Your task to perform on an android device: Is it going to rain this weekend? Image 0: 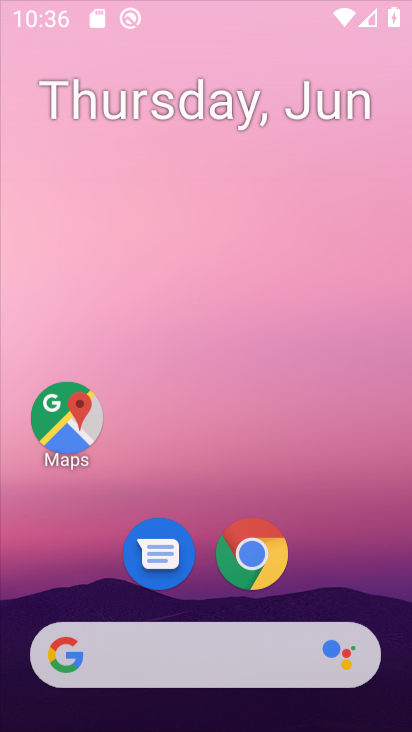
Step 0: drag from (179, 379) to (221, 181)
Your task to perform on an android device: Is it going to rain this weekend? Image 1: 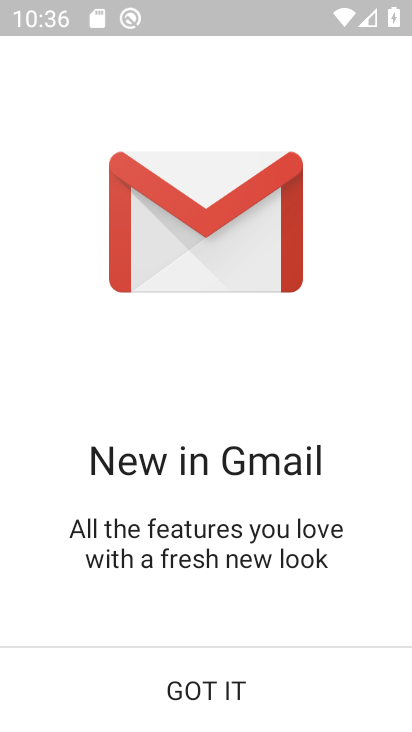
Step 1: click (203, 680)
Your task to perform on an android device: Is it going to rain this weekend? Image 2: 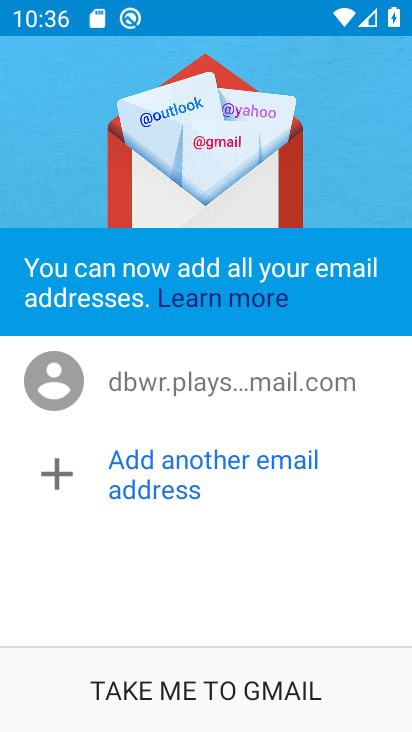
Step 2: press home button
Your task to perform on an android device: Is it going to rain this weekend? Image 3: 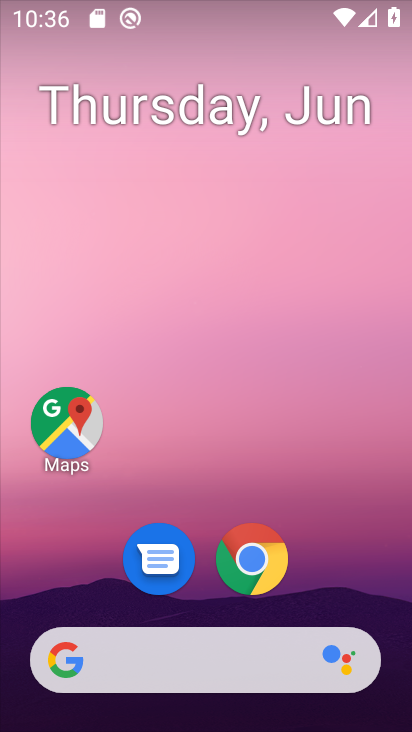
Step 3: drag from (183, 626) to (255, 29)
Your task to perform on an android device: Is it going to rain this weekend? Image 4: 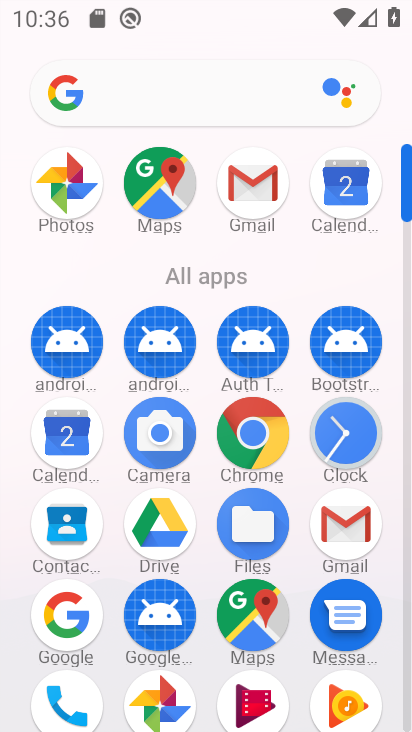
Step 4: click (64, 614)
Your task to perform on an android device: Is it going to rain this weekend? Image 5: 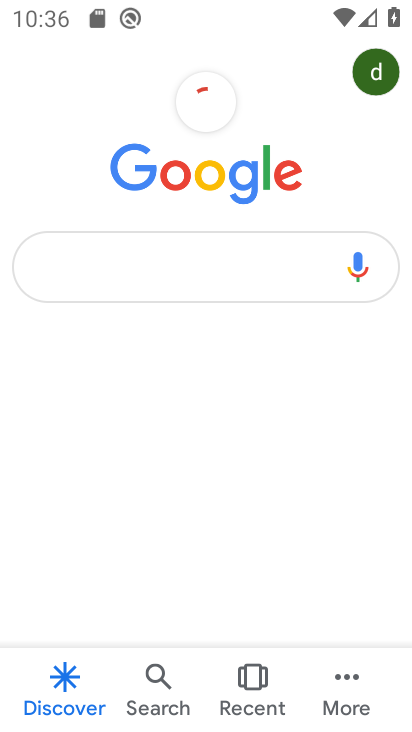
Step 5: click (187, 256)
Your task to perform on an android device: Is it going to rain this weekend? Image 6: 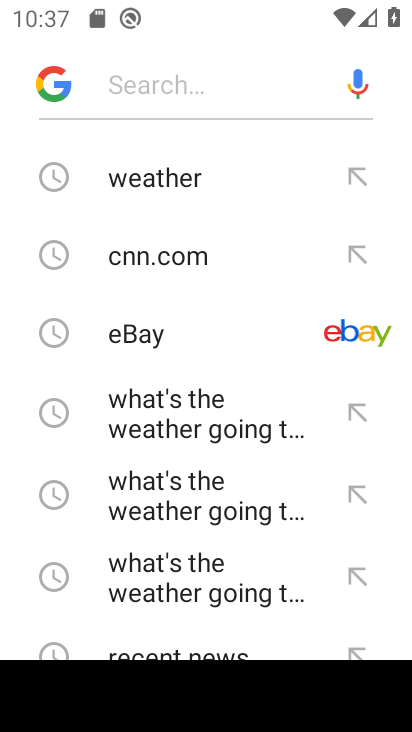
Step 6: drag from (182, 451) to (198, 130)
Your task to perform on an android device: Is it going to rain this weekend? Image 7: 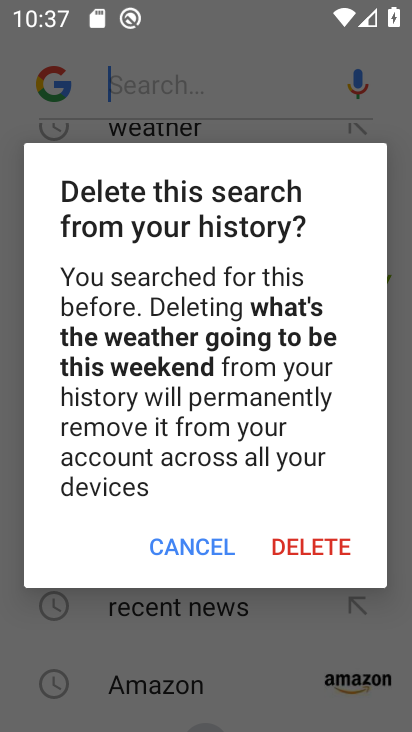
Step 7: click (176, 542)
Your task to perform on an android device: Is it going to rain this weekend? Image 8: 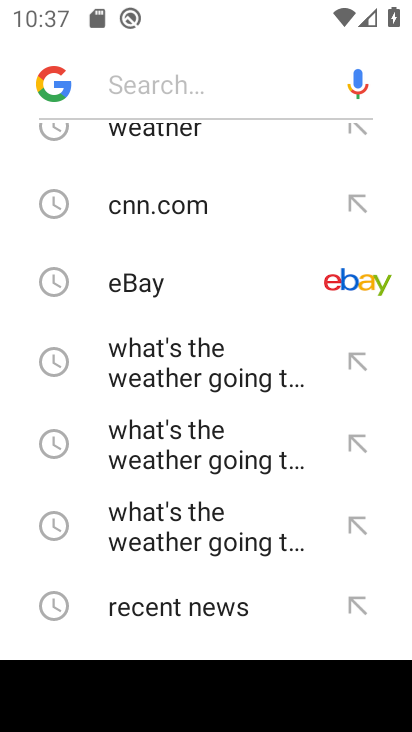
Step 8: drag from (179, 614) to (192, 267)
Your task to perform on an android device: Is it going to rain this weekend? Image 9: 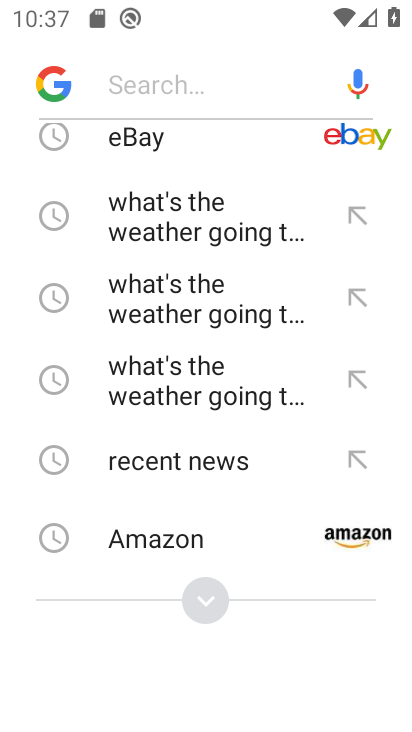
Step 9: click (206, 602)
Your task to perform on an android device: Is it going to rain this weekend? Image 10: 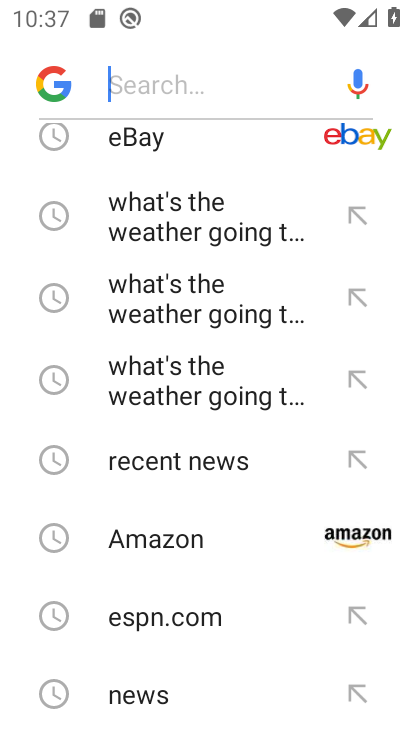
Step 10: drag from (199, 681) to (254, 210)
Your task to perform on an android device: Is it going to rain this weekend? Image 11: 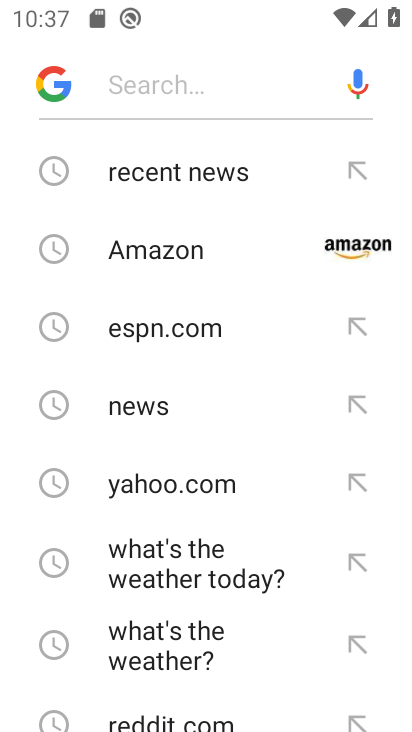
Step 11: drag from (147, 624) to (200, 154)
Your task to perform on an android device: Is it going to rain this weekend? Image 12: 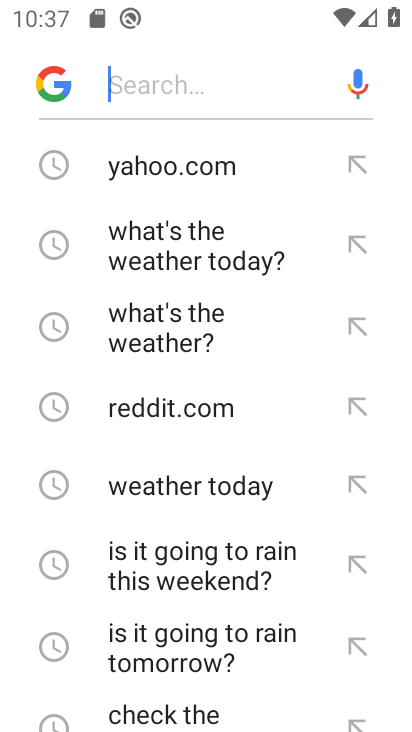
Step 12: click (160, 572)
Your task to perform on an android device: Is it going to rain this weekend? Image 13: 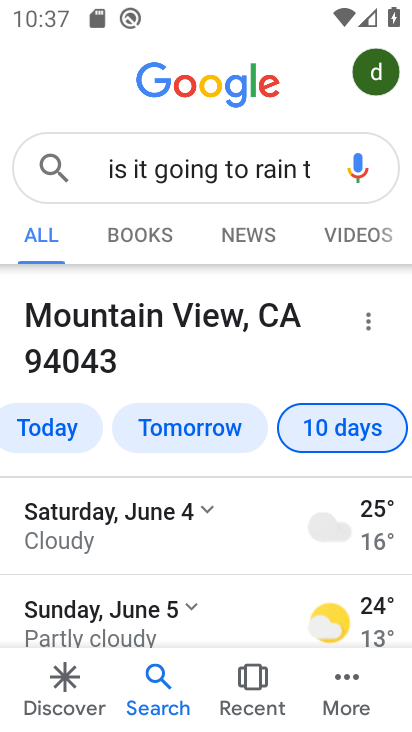
Step 13: task complete